Your task to perform on an android device: toggle data saver in the chrome app Image 0: 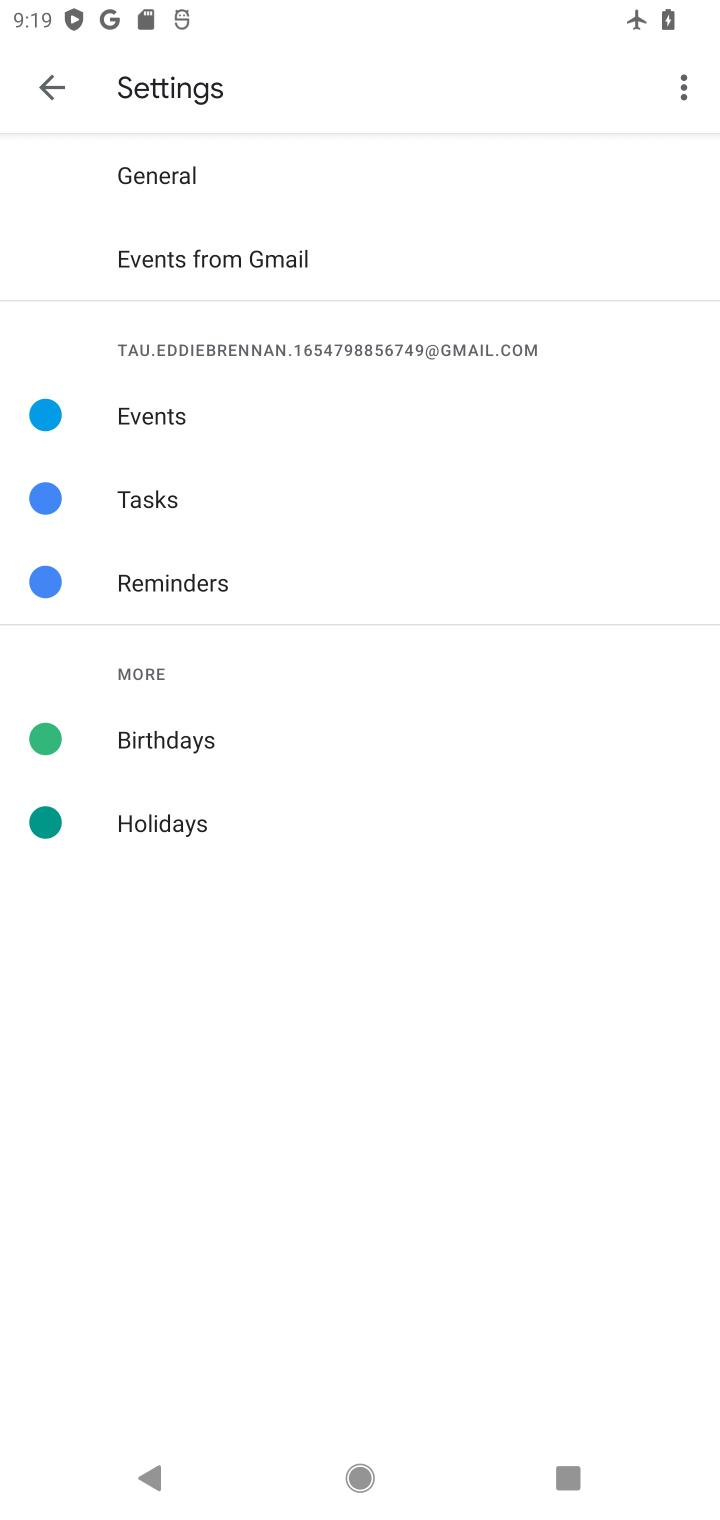
Step 0: press home button
Your task to perform on an android device: toggle data saver in the chrome app Image 1: 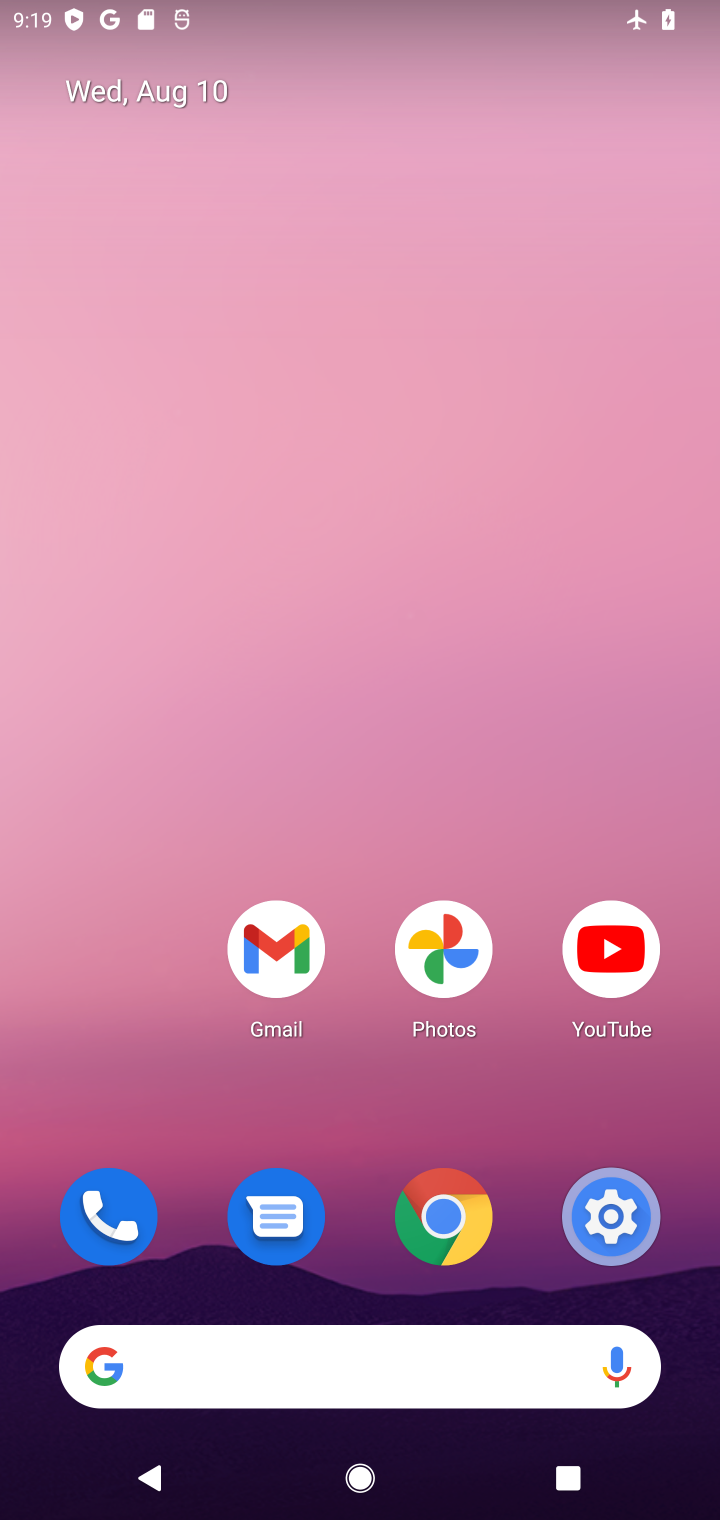
Step 1: click (412, 1223)
Your task to perform on an android device: toggle data saver in the chrome app Image 2: 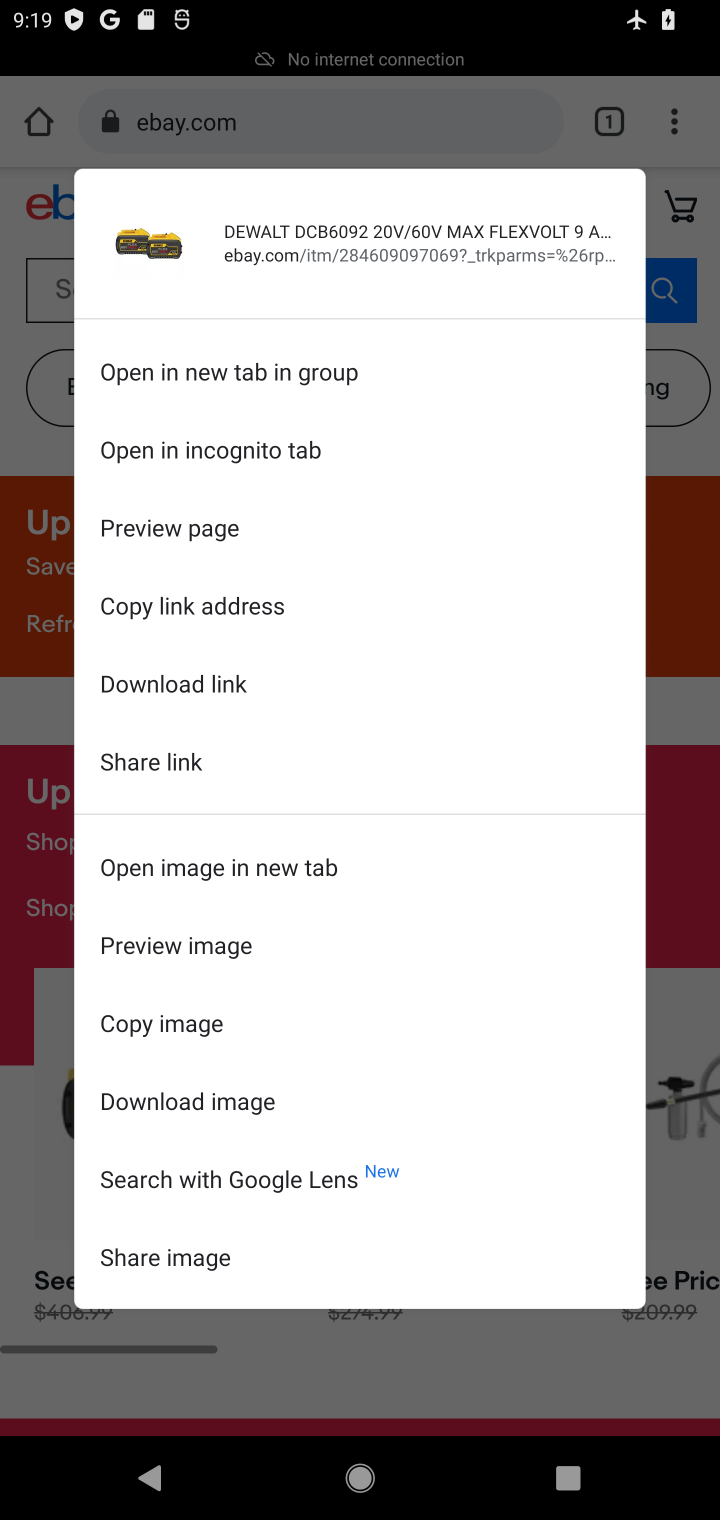
Step 2: press home button
Your task to perform on an android device: toggle data saver in the chrome app Image 3: 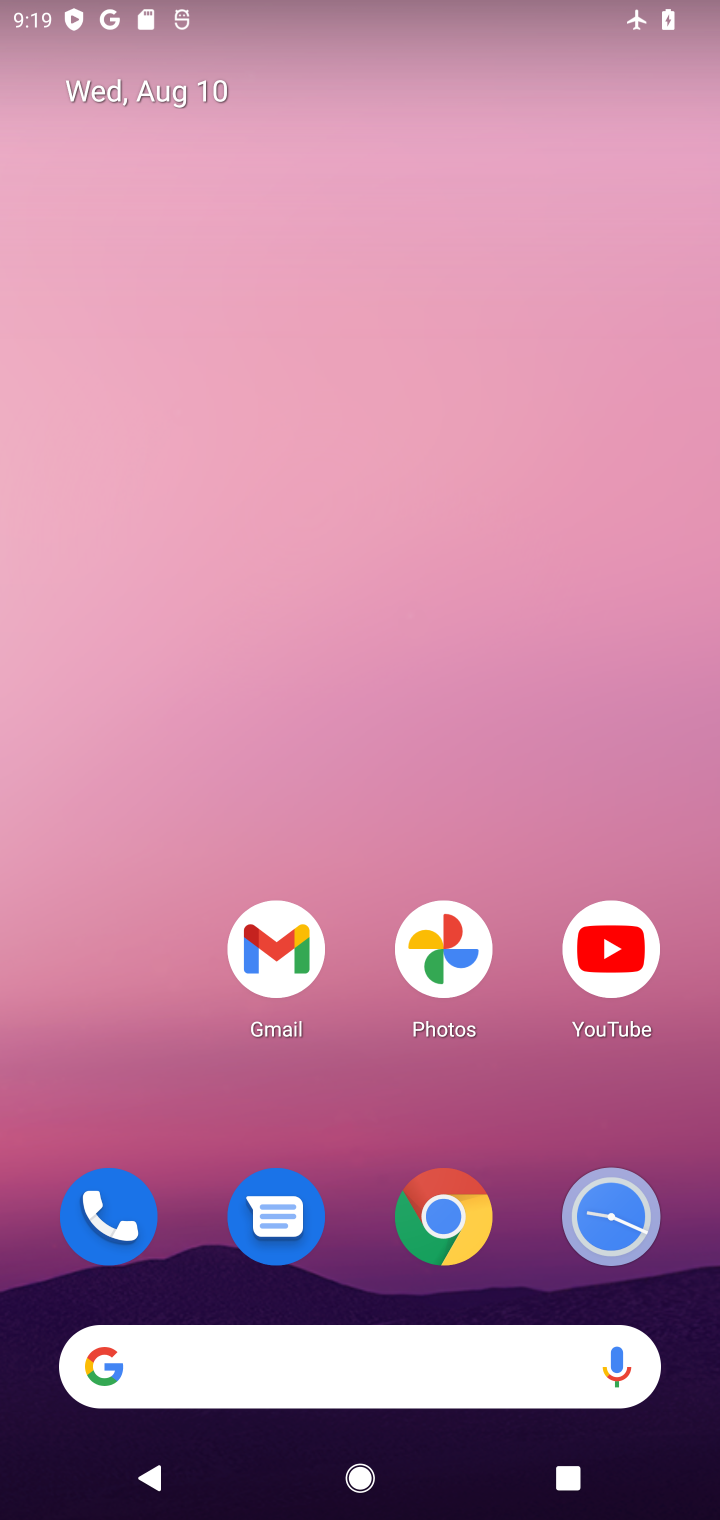
Step 3: click (451, 1229)
Your task to perform on an android device: toggle data saver in the chrome app Image 4: 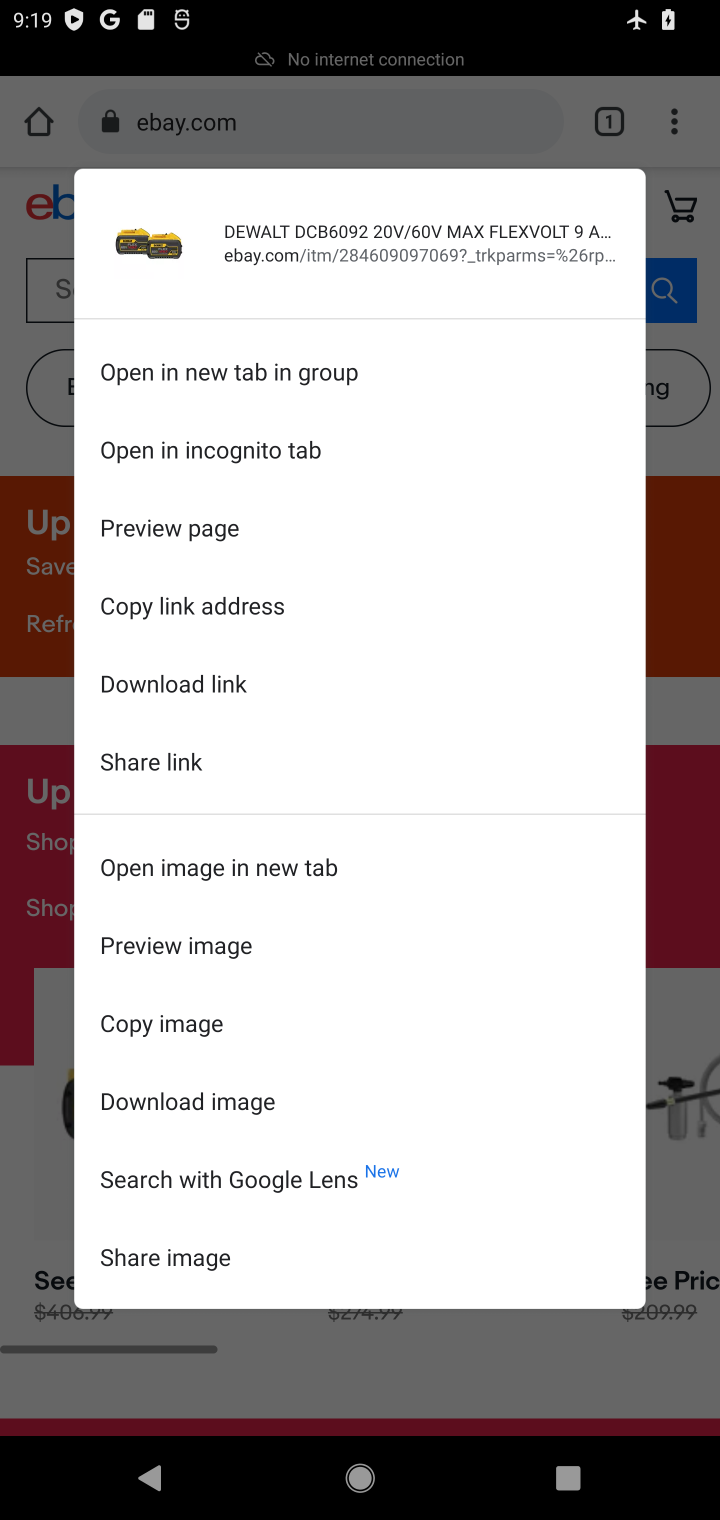
Step 4: task complete